Your task to perform on an android device: turn on airplane mode Image 0: 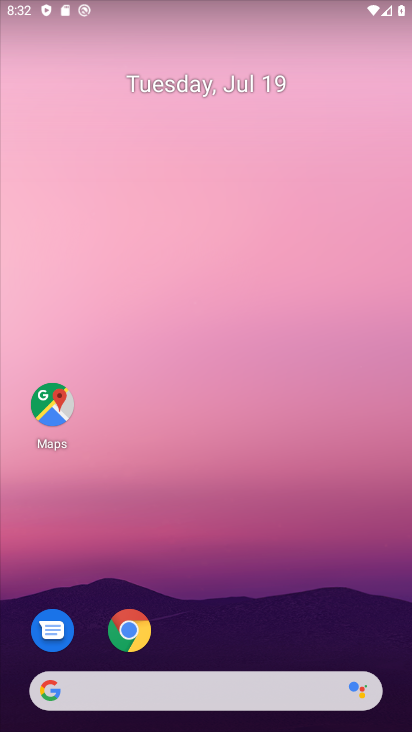
Step 0: drag from (194, 622) to (255, 156)
Your task to perform on an android device: turn on airplane mode Image 1: 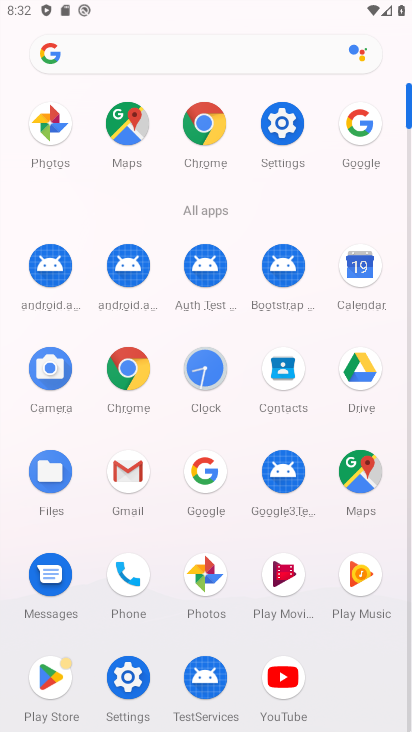
Step 1: click (284, 122)
Your task to perform on an android device: turn on airplane mode Image 2: 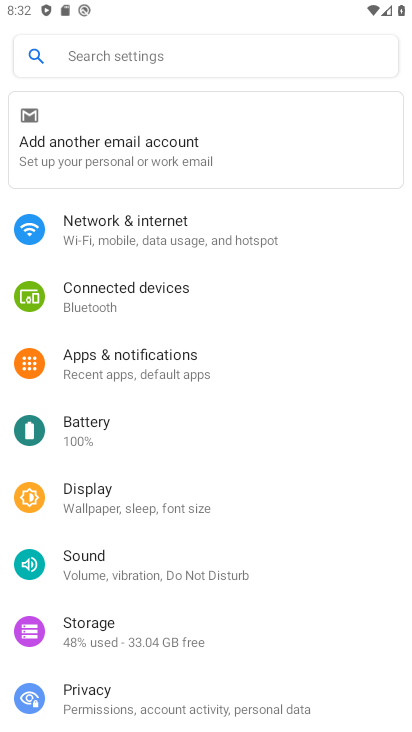
Step 2: click (132, 236)
Your task to perform on an android device: turn on airplane mode Image 3: 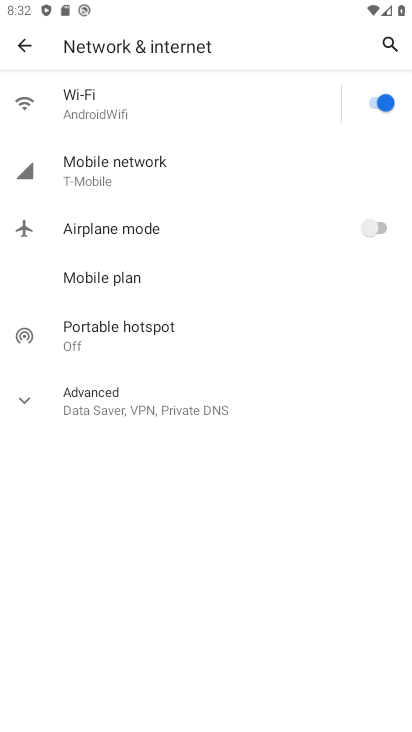
Step 3: click (376, 224)
Your task to perform on an android device: turn on airplane mode Image 4: 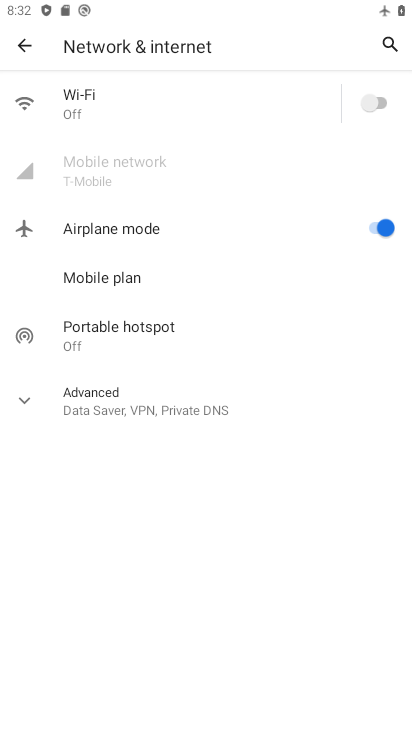
Step 4: task complete